Your task to perform on an android device: open app "TextNow: Call + Text Unlimited" (install if not already installed) and enter user name: "stoke@yahoo.com" and password: "prompted" Image 0: 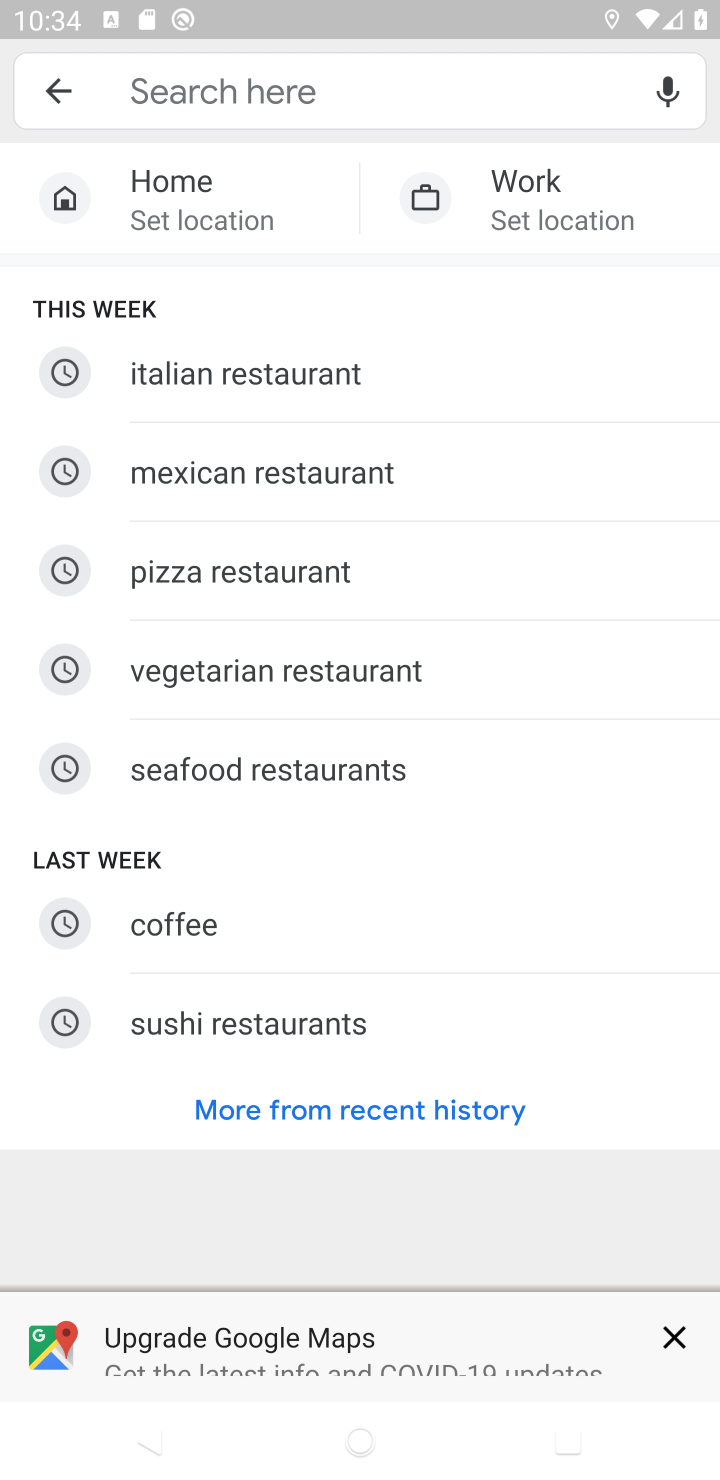
Step 0: press home button
Your task to perform on an android device: open app "TextNow: Call + Text Unlimited" (install if not already installed) and enter user name: "stoke@yahoo.com" and password: "prompted" Image 1: 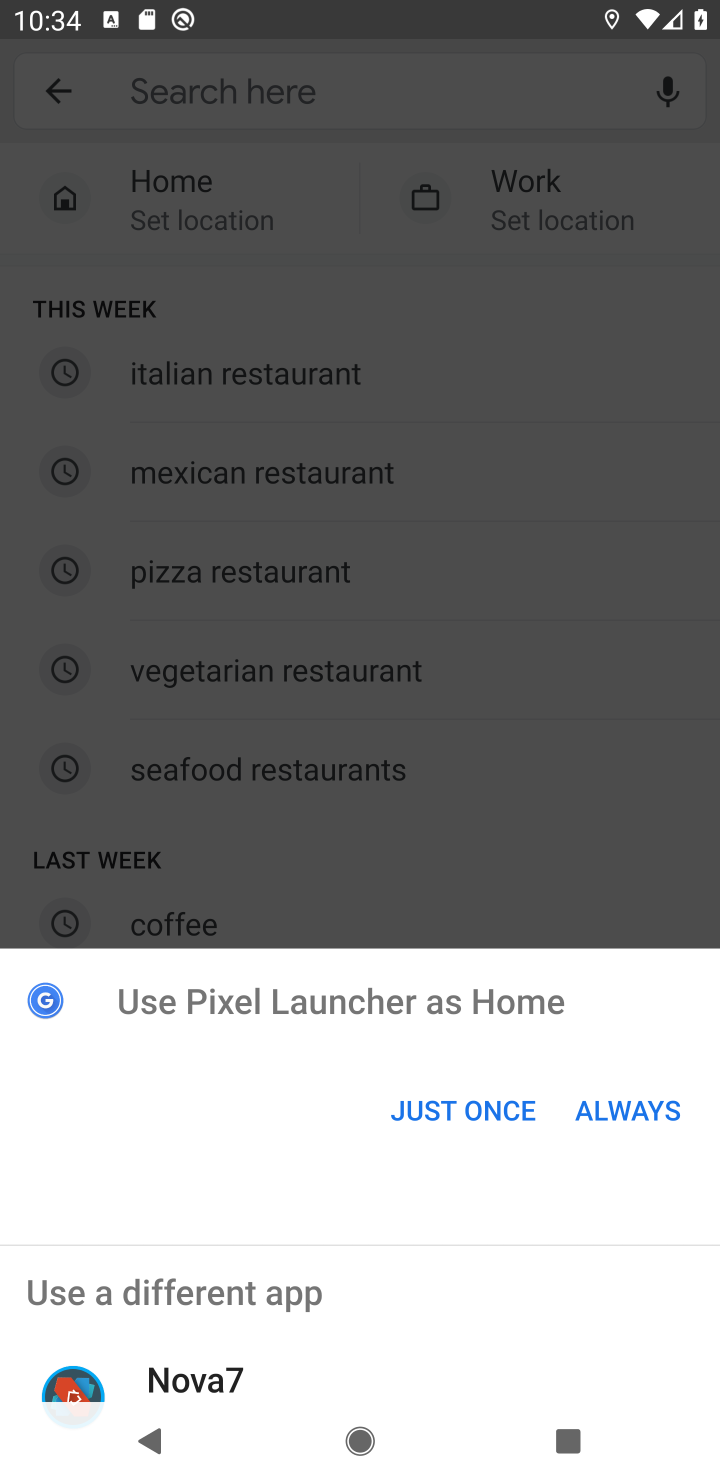
Step 1: press home button
Your task to perform on an android device: open app "TextNow: Call + Text Unlimited" (install if not already installed) and enter user name: "stoke@yahoo.com" and password: "prompted" Image 2: 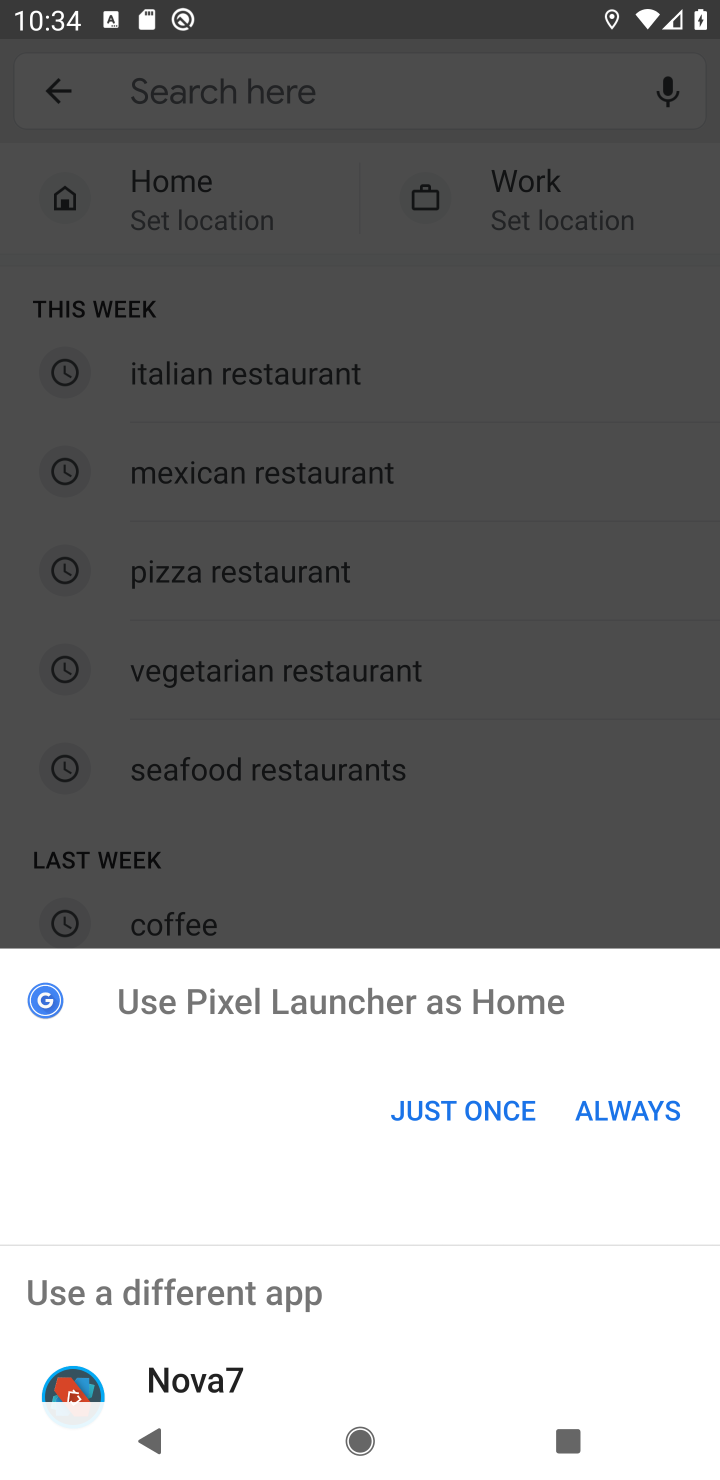
Step 2: press home button
Your task to perform on an android device: open app "TextNow: Call + Text Unlimited" (install if not already installed) and enter user name: "stoke@yahoo.com" and password: "prompted" Image 3: 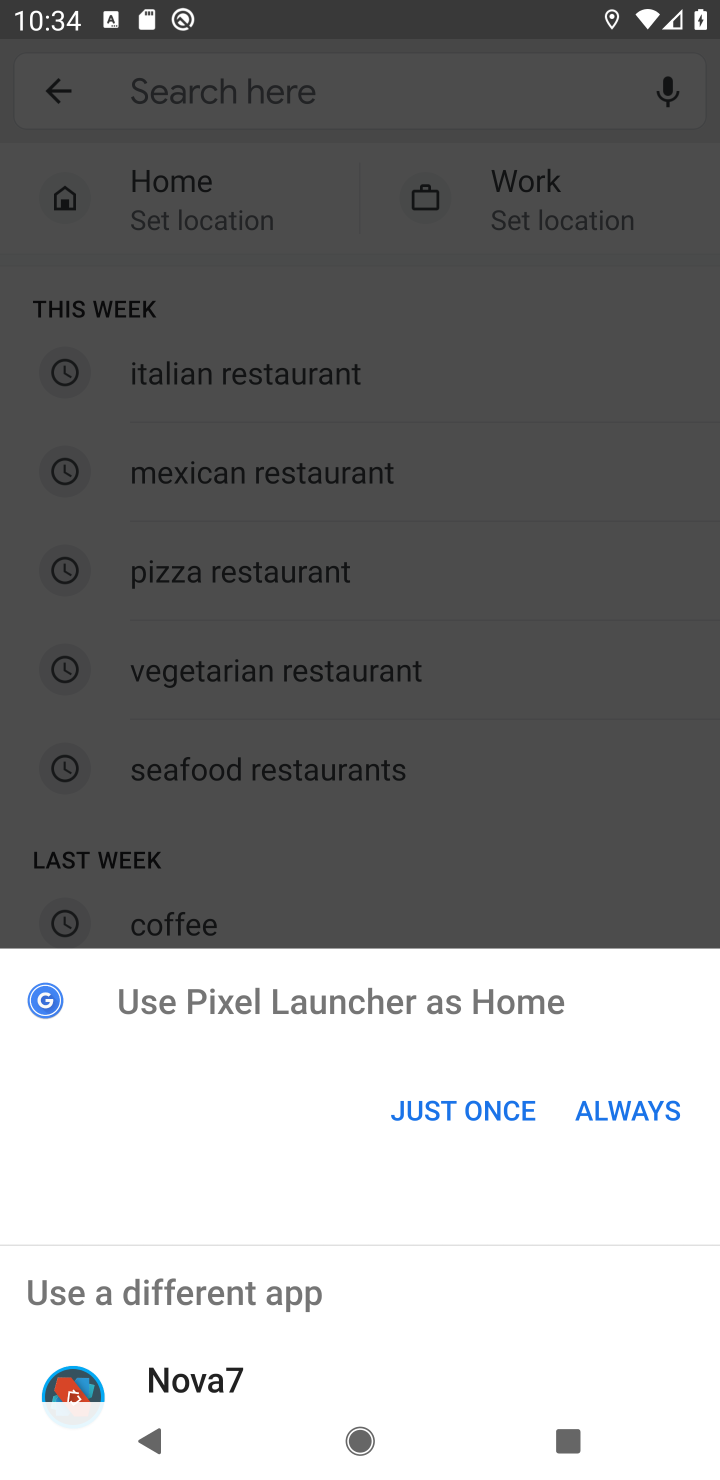
Step 3: click (439, 1094)
Your task to perform on an android device: open app "TextNow: Call + Text Unlimited" (install if not already installed) and enter user name: "stoke@yahoo.com" and password: "prompted" Image 4: 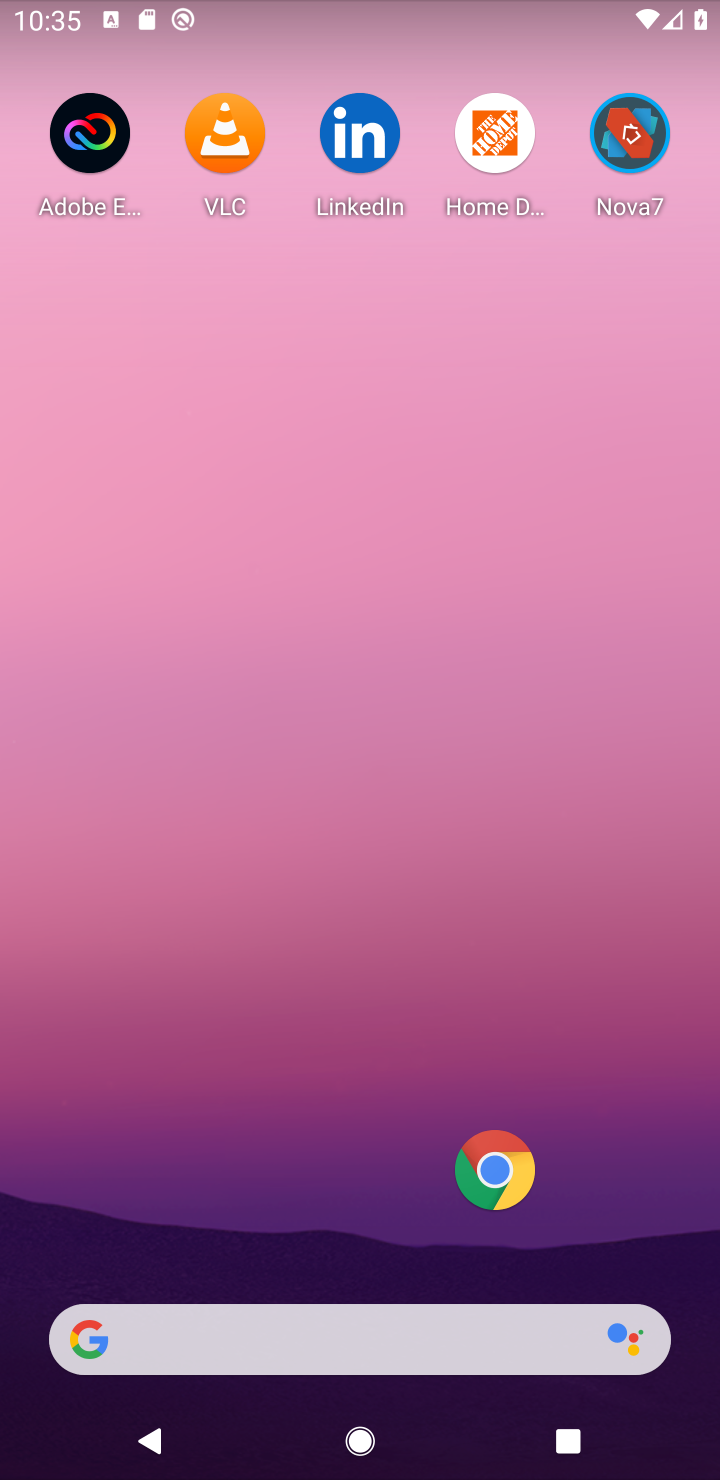
Step 4: drag from (261, 1044) to (394, 102)
Your task to perform on an android device: open app "TextNow: Call + Text Unlimited" (install if not already installed) and enter user name: "stoke@yahoo.com" and password: "prompted" Image 5: 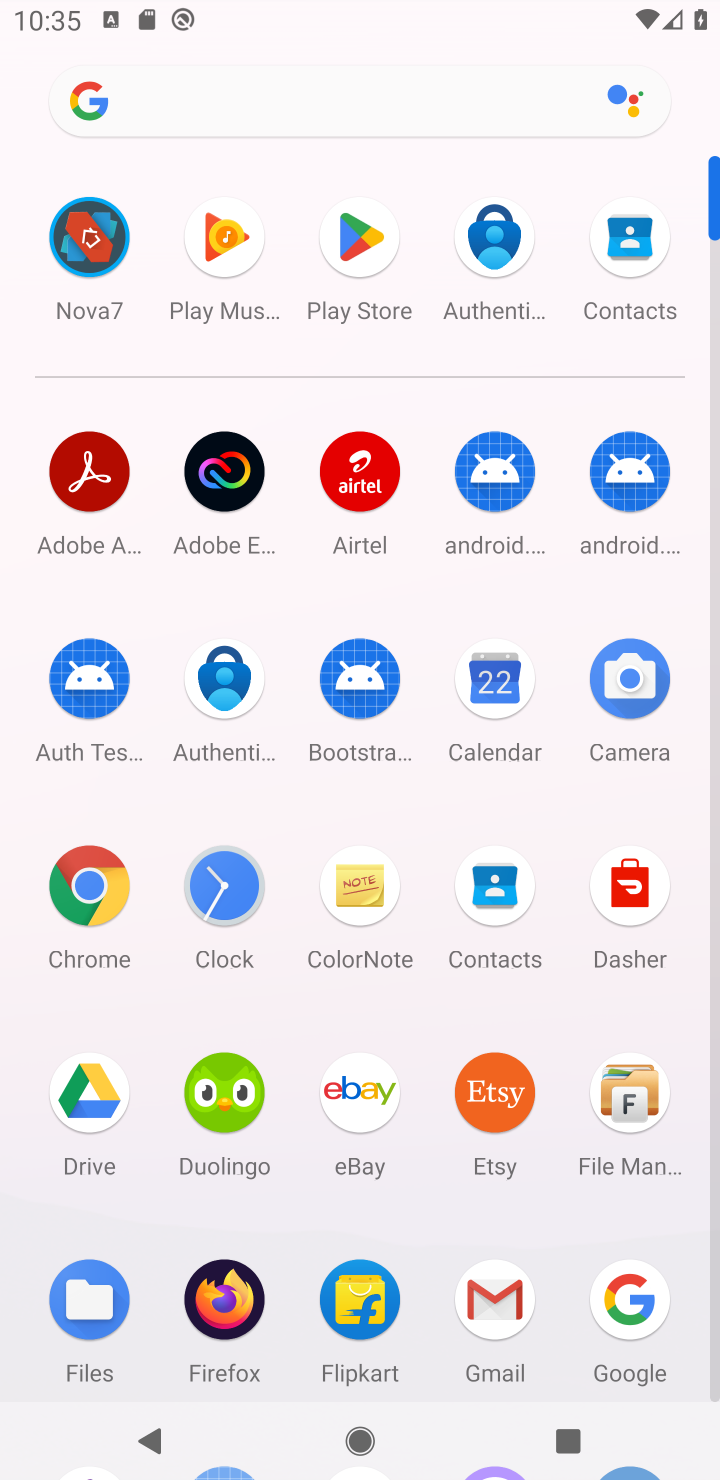
Step 5: click (377, 245)
Your task to perform on an android device: open app "TextNow: Call + Text Unlimited" (install if not already installed) and enter user name: "stoke@yahoo.com" and password: "prompted" Image 6: 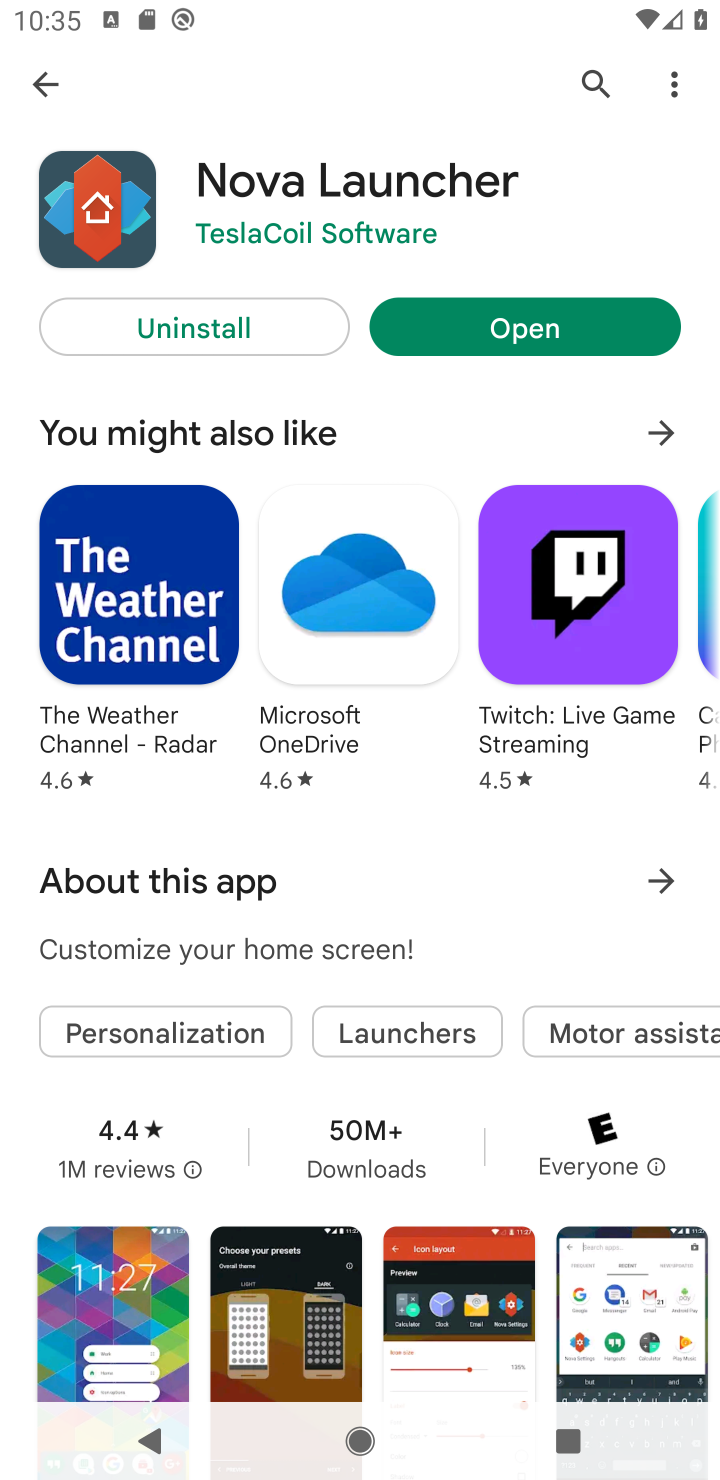
Step 6: click (588, 71)
Your task to perform on an android device: open app "TextNow: Call + Text Unlimited" (install if not already installed) and enter user name: "stoke@yahoo.com" and password: "prompted" Image 7: 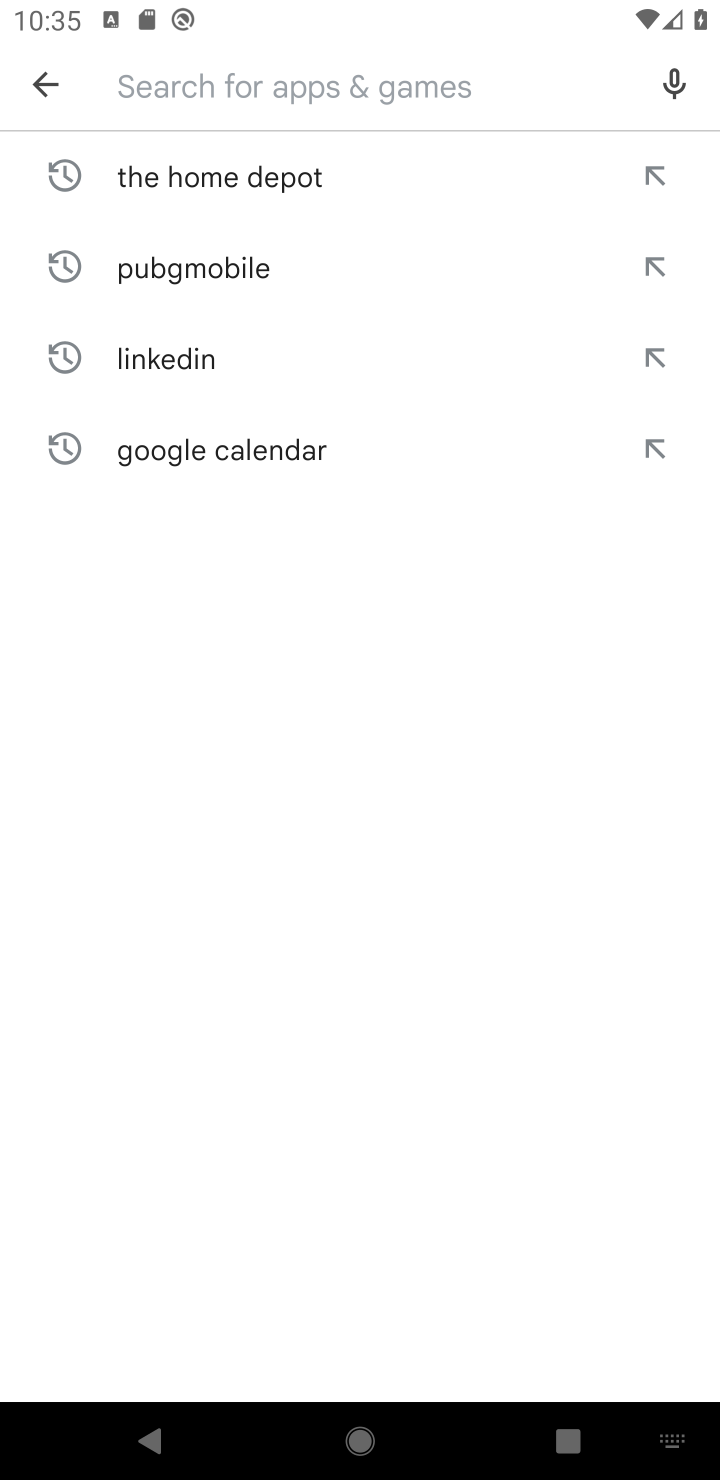
Step 7: click (198, 78)
Your task to perform on an android device: open app "TextNow: Call + Text Unlimited" (install if not already installed) and enter user name: "stoke@yahoo.com" and password: "prompted" Image 8: 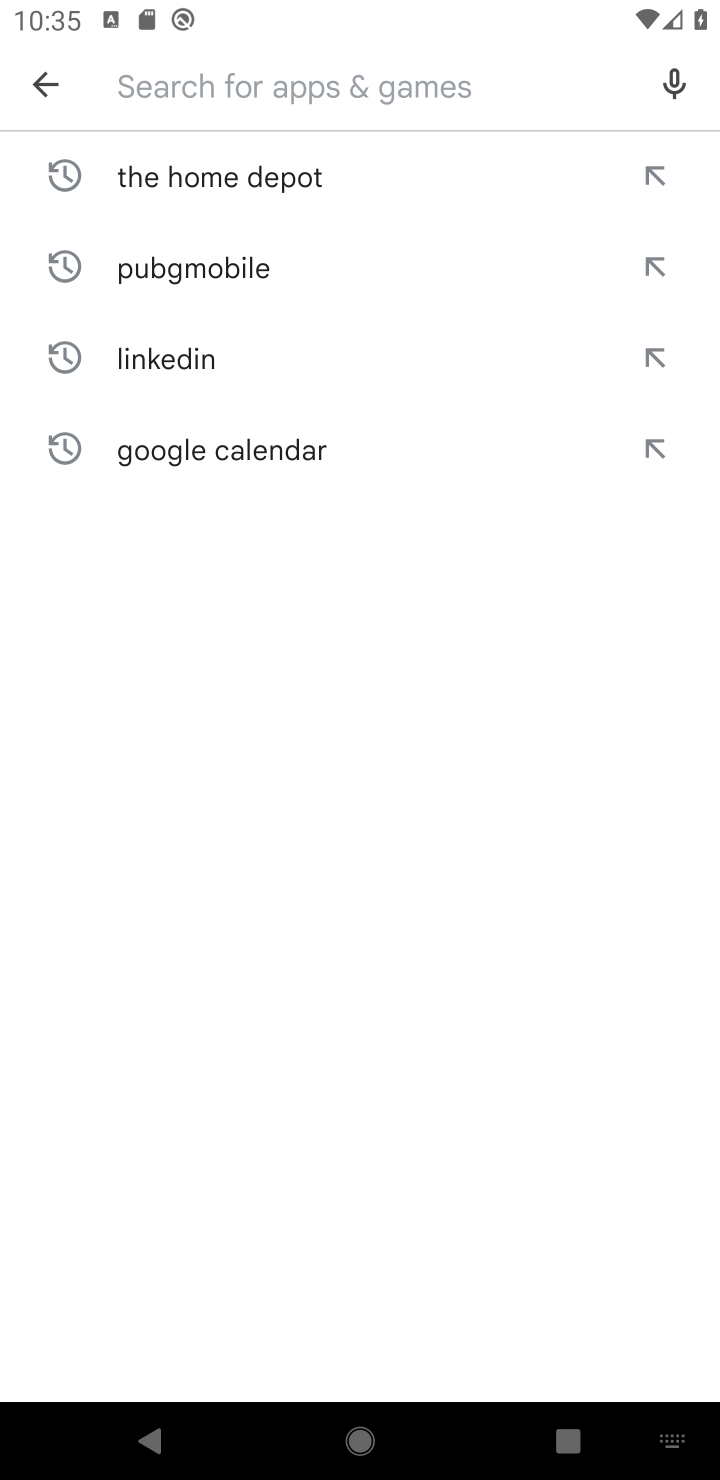
Step 8: type "TextNow: Call"
Your task to perform on an android device: open app "TextNow: Call + Text Unlimited" (install if not already installed) and enter user name: "stoke@yahoo.com" and password: "prompted" Image 9: 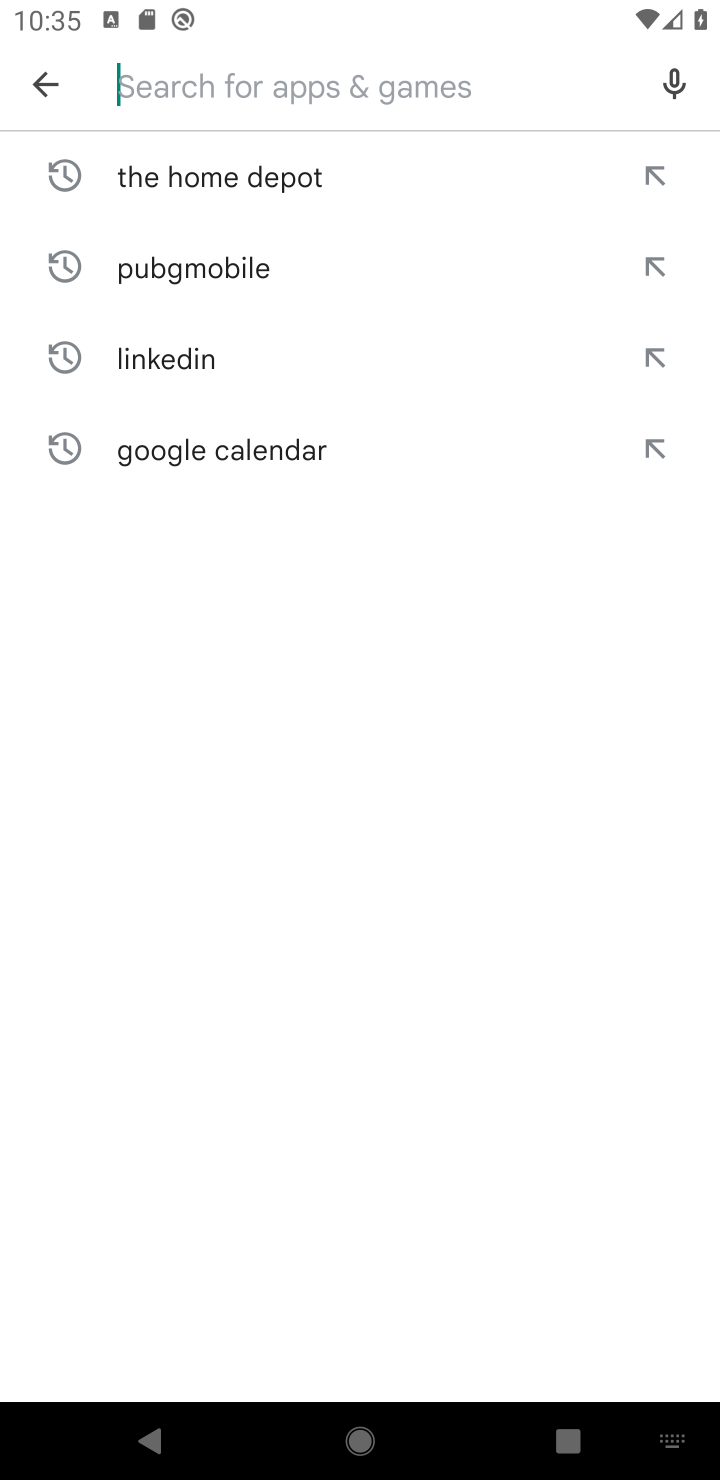
Step 9: click (409, 904)
Your task to perform on an android device: open app "TextNow: Call + Text Unlimited" (install if not already installed) and enter user name: "stoke@yahoo.com" and password: "prompted" Image 10: 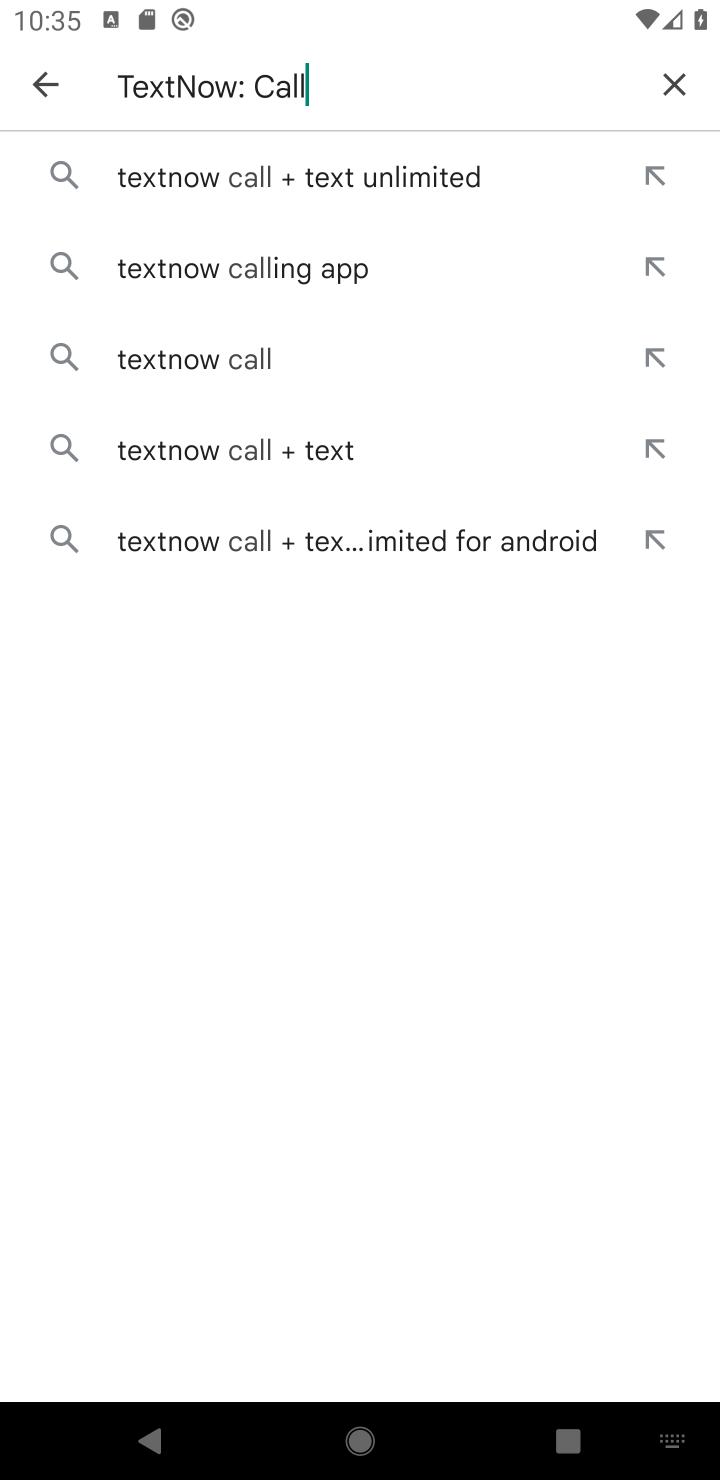
Step 10: click (332, 166)
Your task to perform on an android device: open app "TextNow: Call + Text Unlimited" (install if not already installed) and enter user name: "stoke@yahoo.com" and password: "prompted" Image 11: 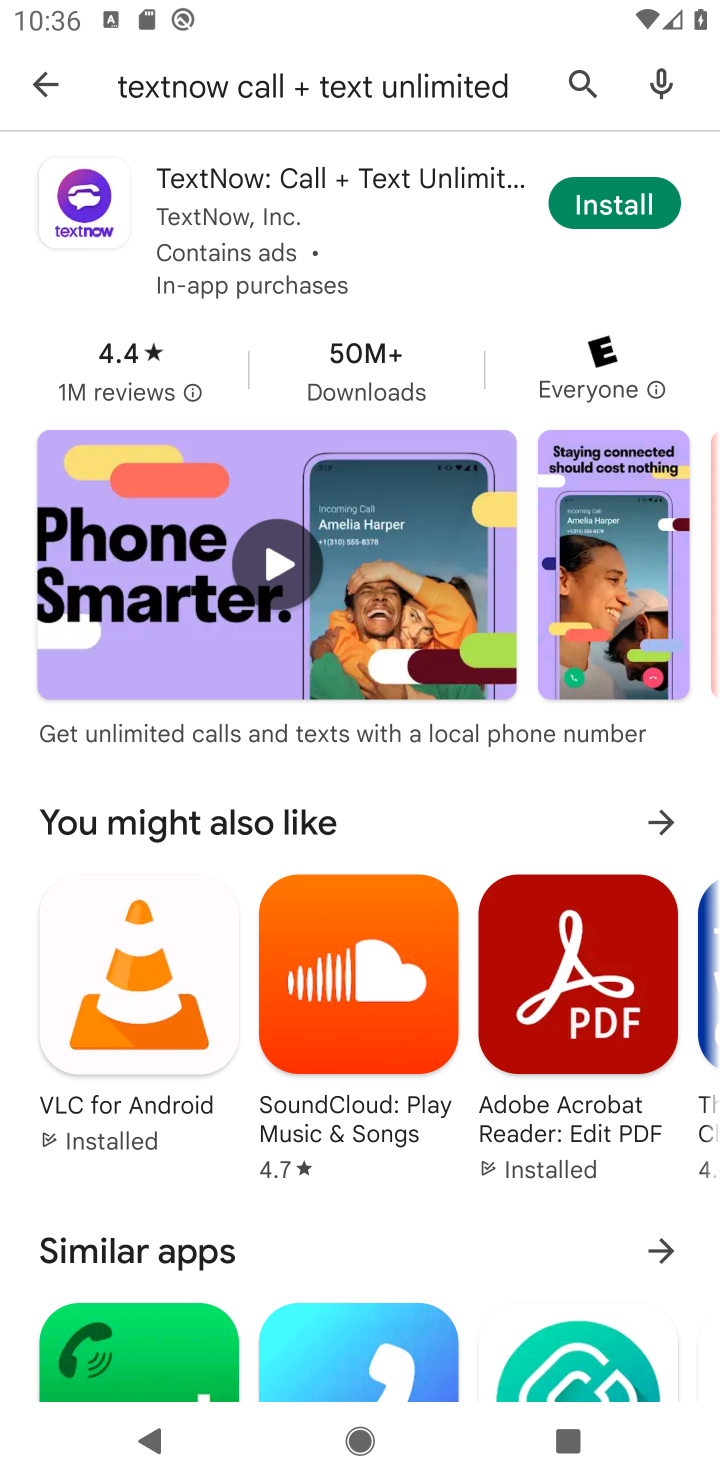
Step 11: click (617, 197)
Your task to perform on an android device: open app "TextNow: Call + Text Unlimited" (install if not already installed) and enter user name: "stoke@yahoo.com" and password: "prompted" Image 12: 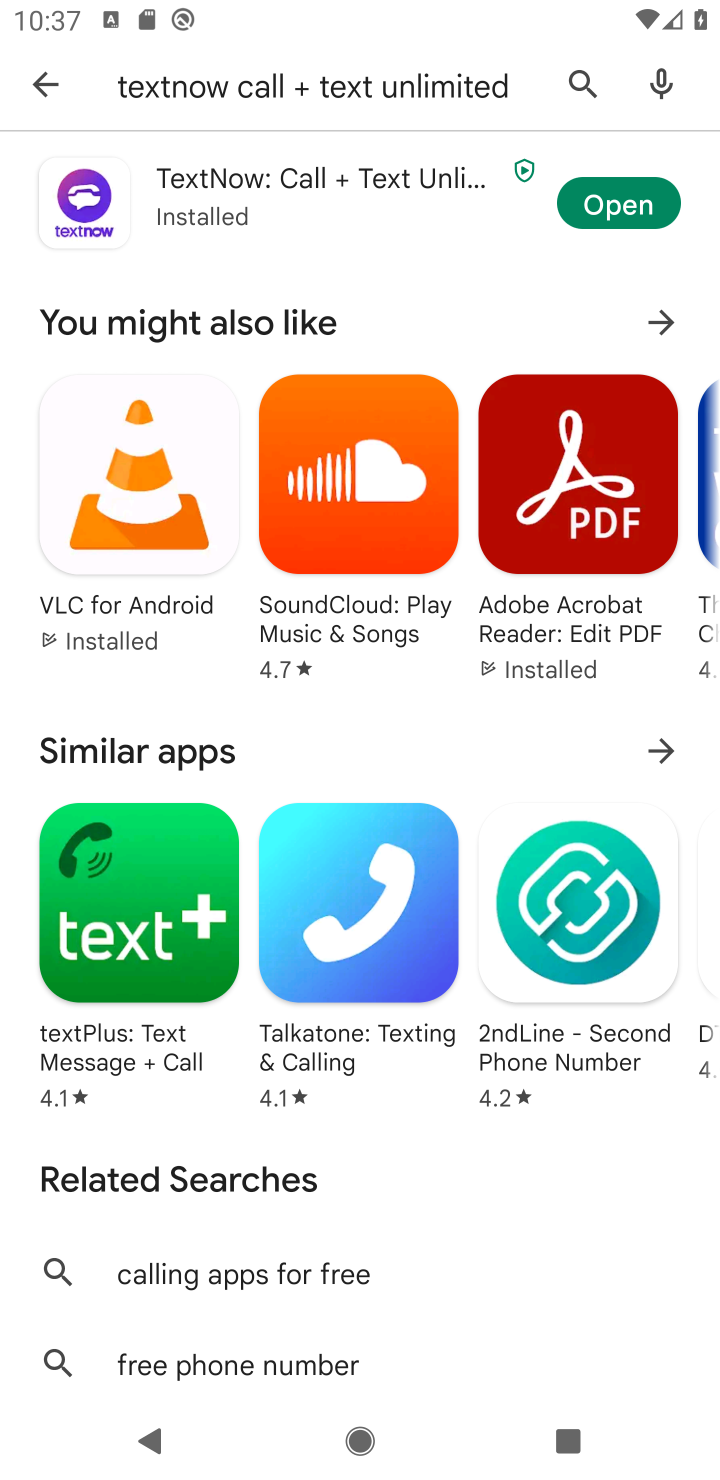
Step 12: click (604, 209)
Your task to perform on an android device: open app "TextNow: Call + Text Unlimited" (install if not already installed) and enter user name: "stoke@yahoo.com" and password: "prompted" Image 13: 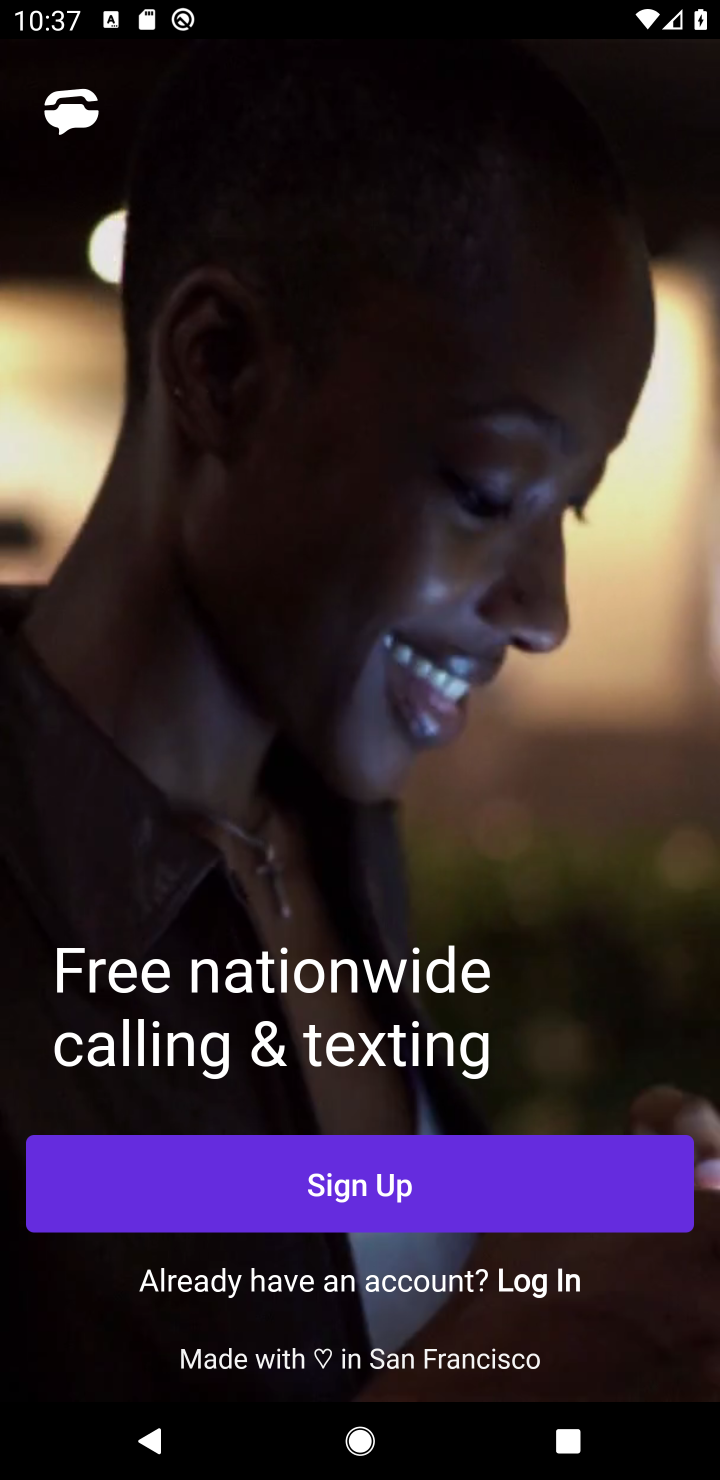
Step 13: click (526, 1286)
Your task to perform on an android device: open app "TextNow: Call + Text Unlimited" (install if not already installed) and enter user name: "stoke@yahoo.com" and password: "prompted" Image 14: 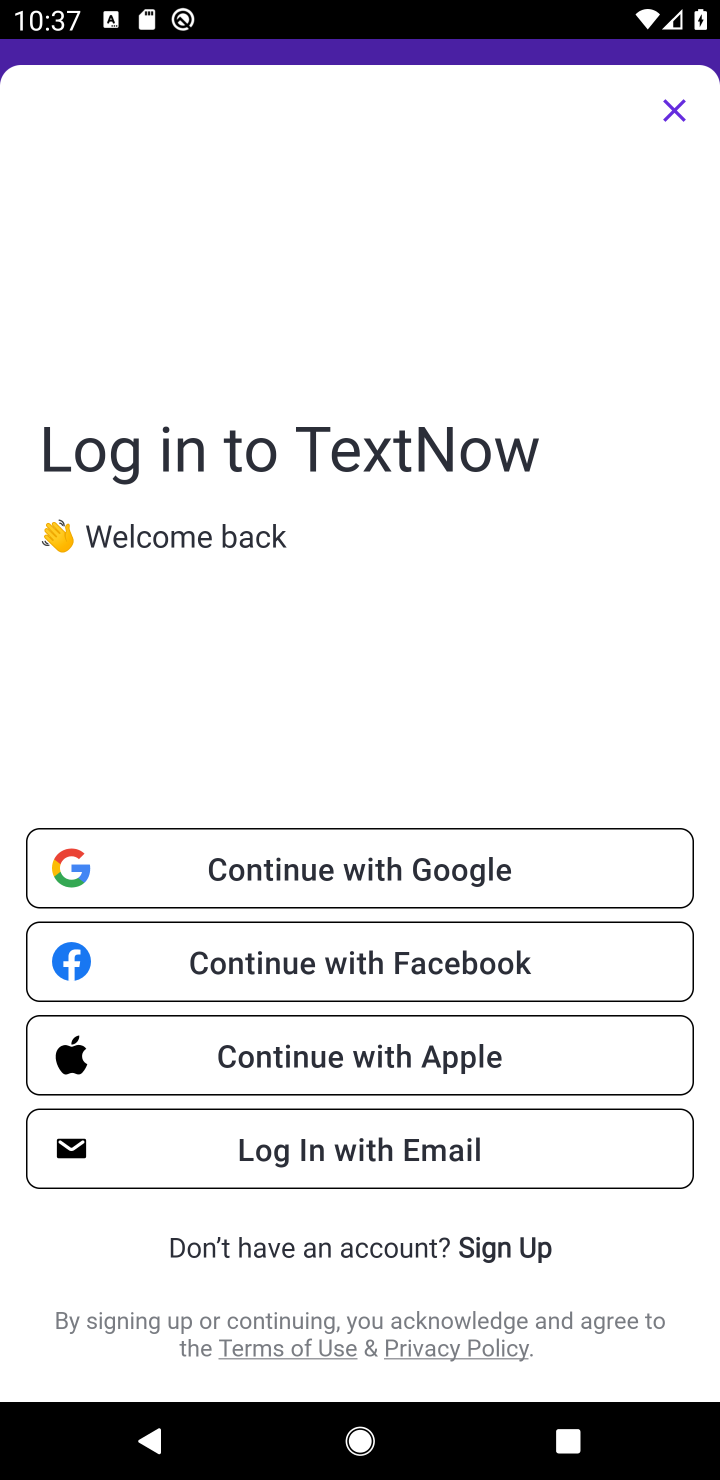
Step 14: click (472, 1244)
Your task to perform on an android device: open app "TextNow: Call + Text Unlimited" (install if not already installed) and enter user name: "stoke@yahoo.com" and password: "prompted" Image 15: 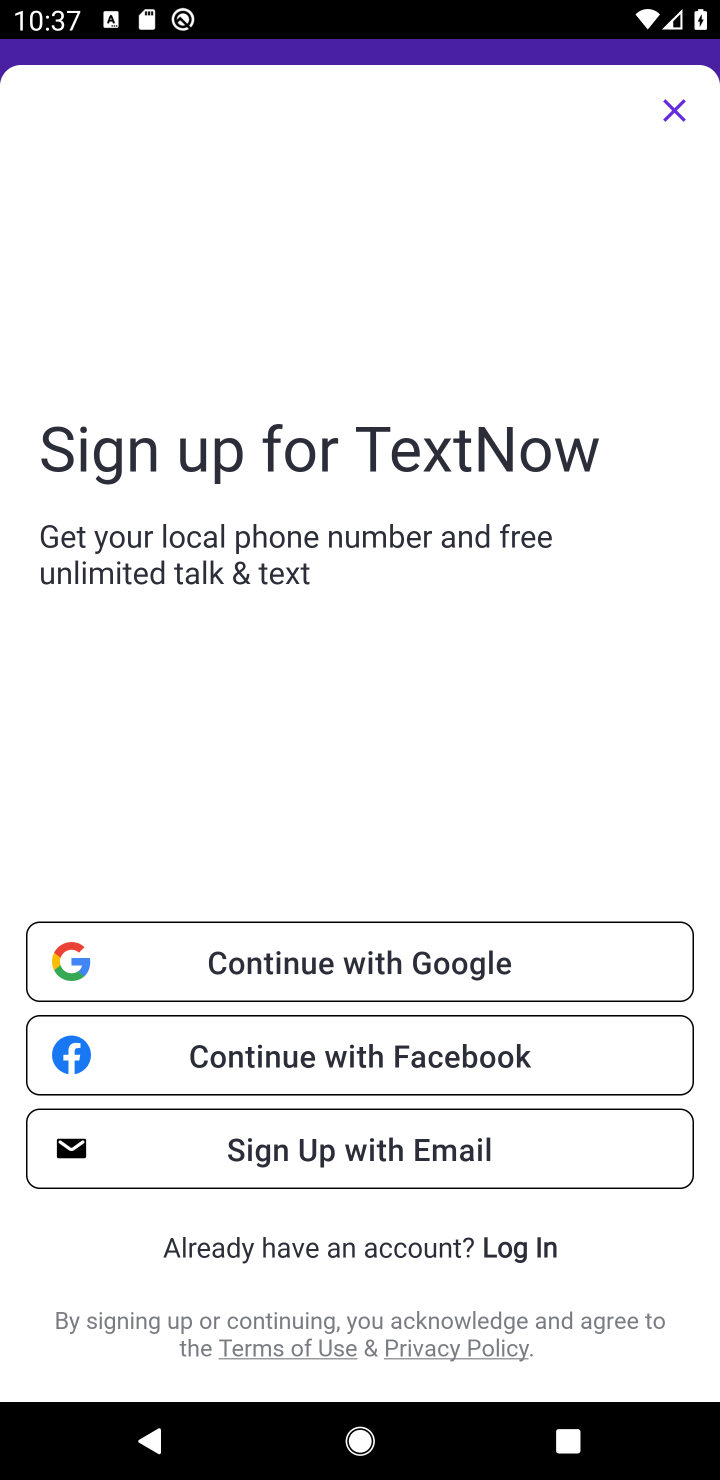
Step 15: click (504, 1242)
Your task to perform on an android device: open app "TextNow: Call + Text Unlimited" (install if not already installed) and enter user name: "stoke@yahoo.com" and password: "prompted" Image 16: 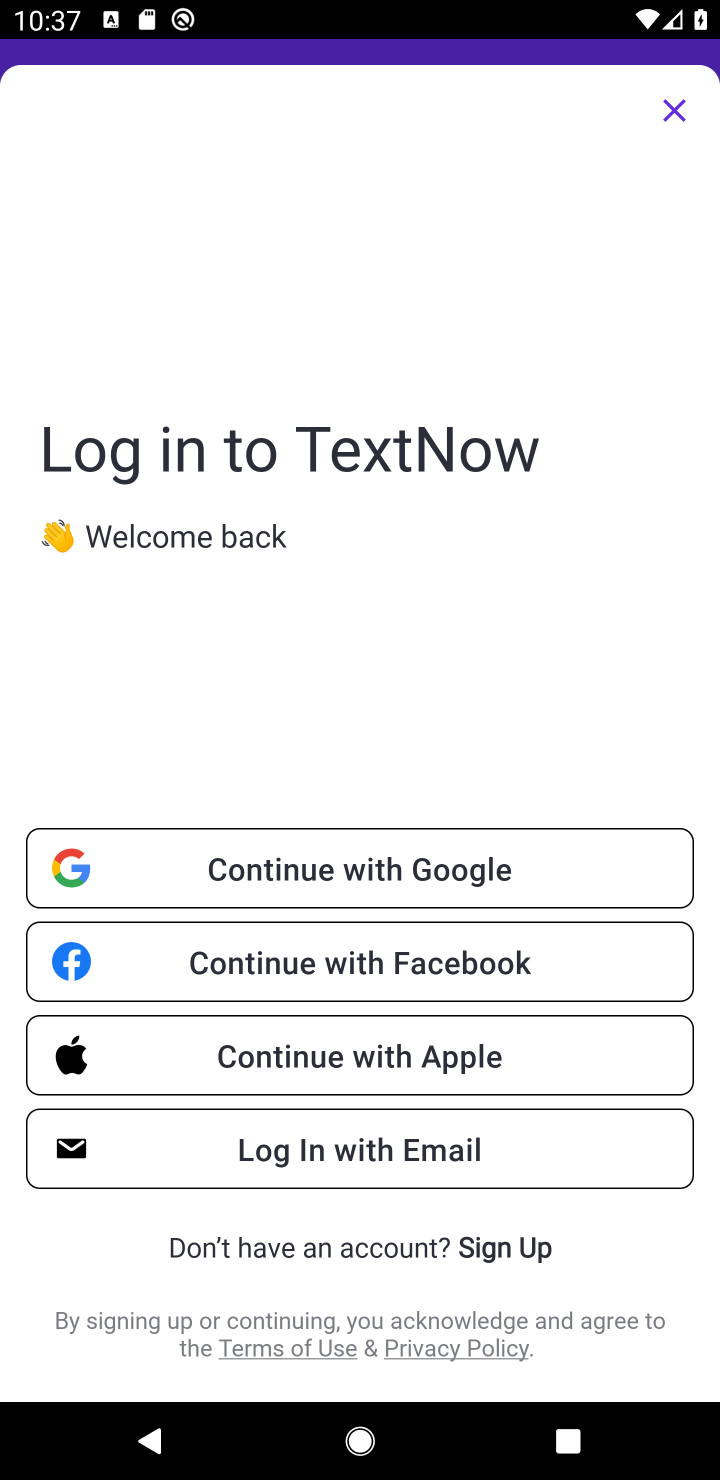
Step 16: click (353, 1139)
Your task to perform on an android device: open app "TextNow: Call + Text Unlimited" (install if not already installed) and enter user name: "stoke@yahoo.com" and password: "prompted" Image 17: 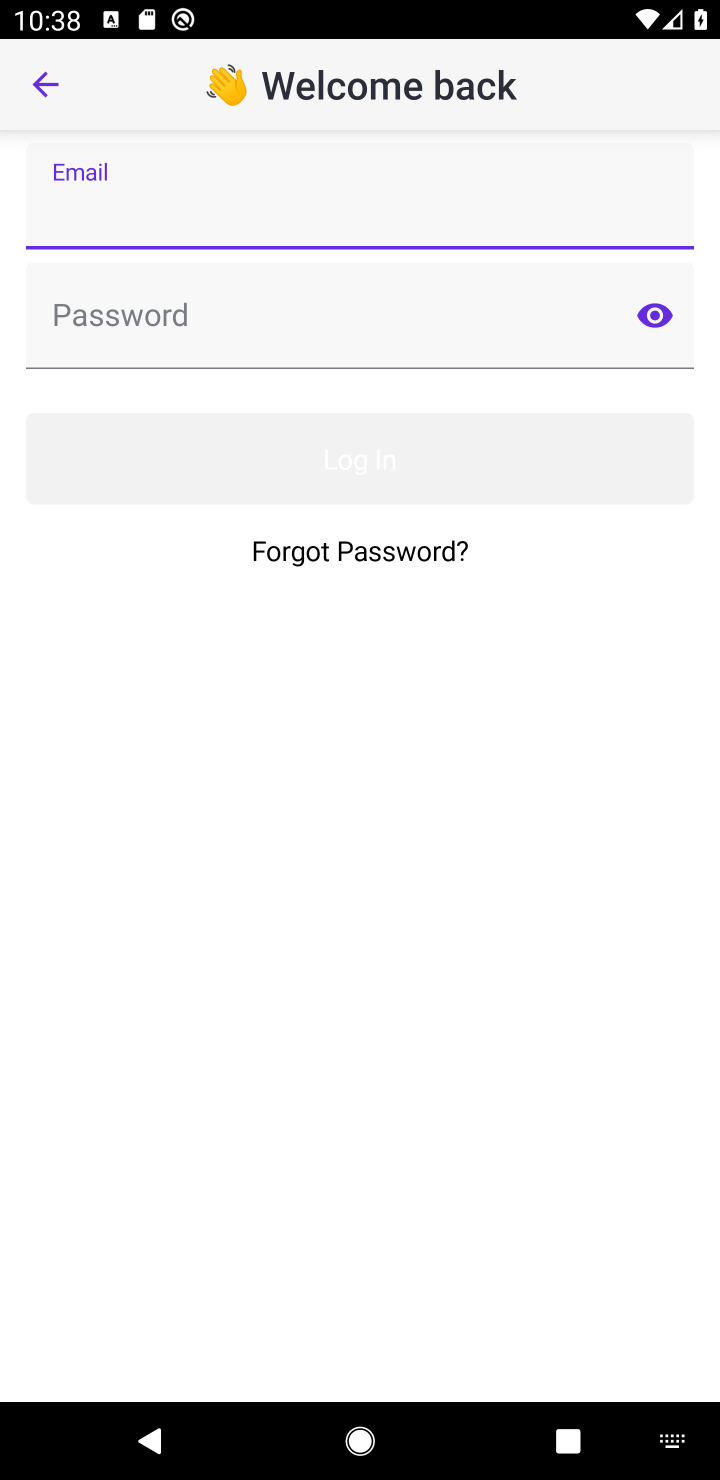
Step 17: click (112, 208)
Your task to perform on an android device: open app "TextNow: Call + Text Unlimited" (install if not already installed) and enter user name: "stoke@yahoo.com" and password: "prompted" Image 18: 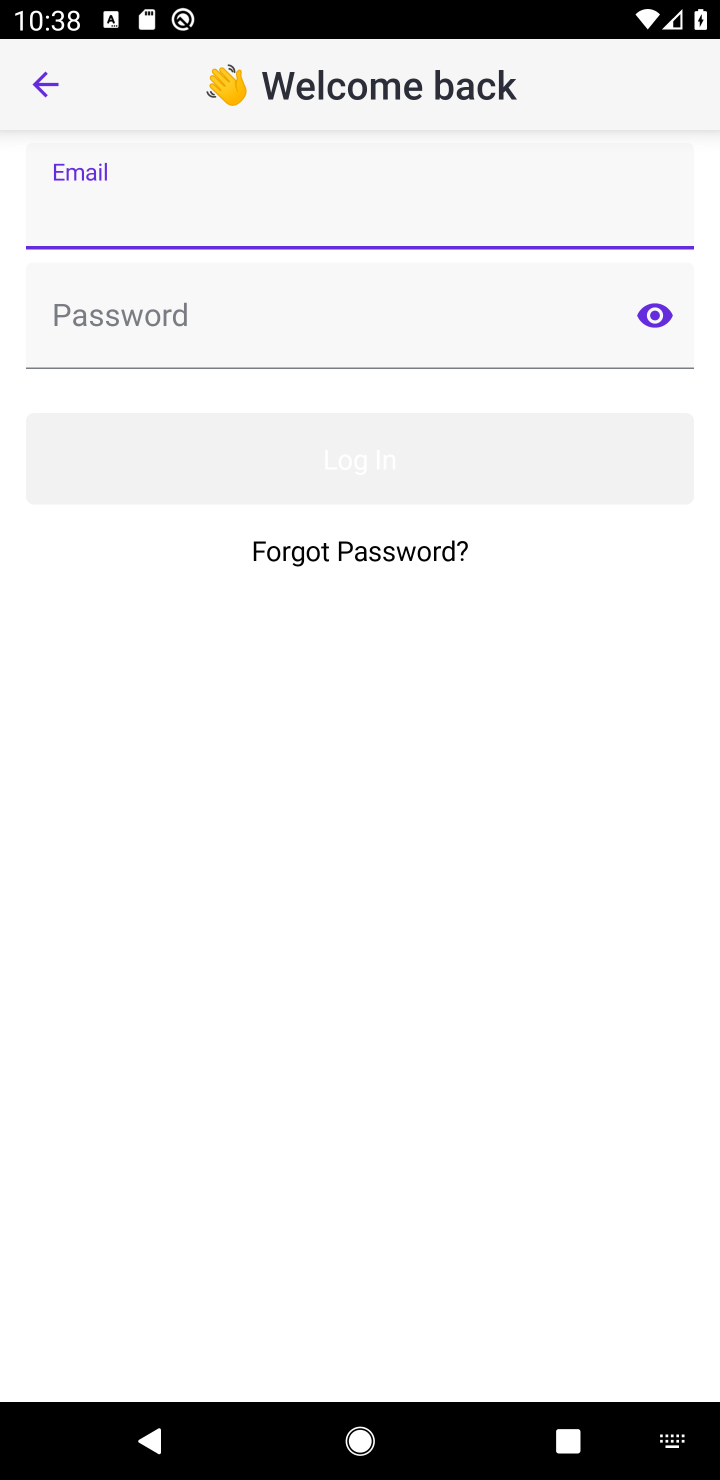
Step 18: type "stoke@yahoo.com"
Your task to perform on an android device: open app "TextNow: Call + Text Unlimited" (install if not already installed) and enter user name: "stoke@yahoo.com" and password: "prompted" Image 19: 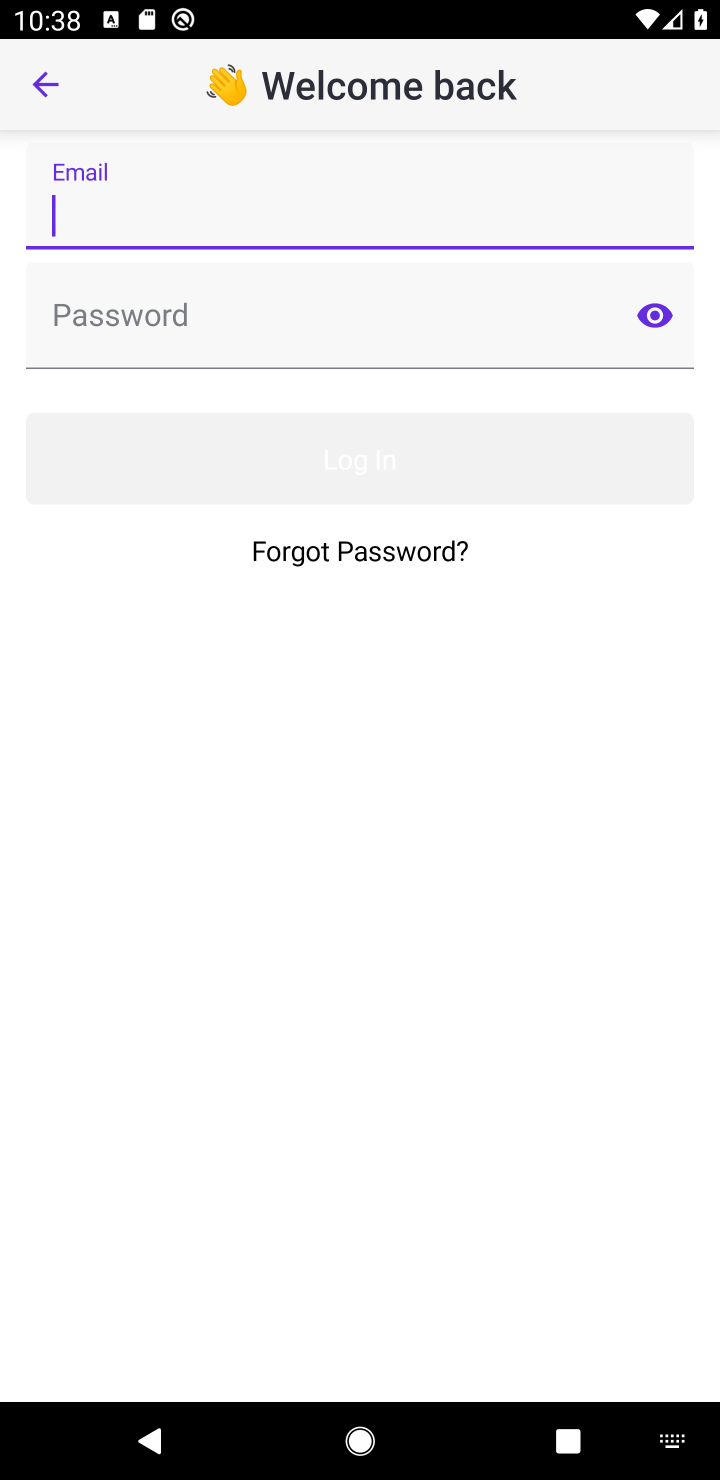
Step 19: click (266, 320)
Your task to perform on an android device: open app "TextNow: Call + Text Unlimited" (install if not already installed) and enter user name: "stoke@yahoo.com" and password: "prompted" Image 20: 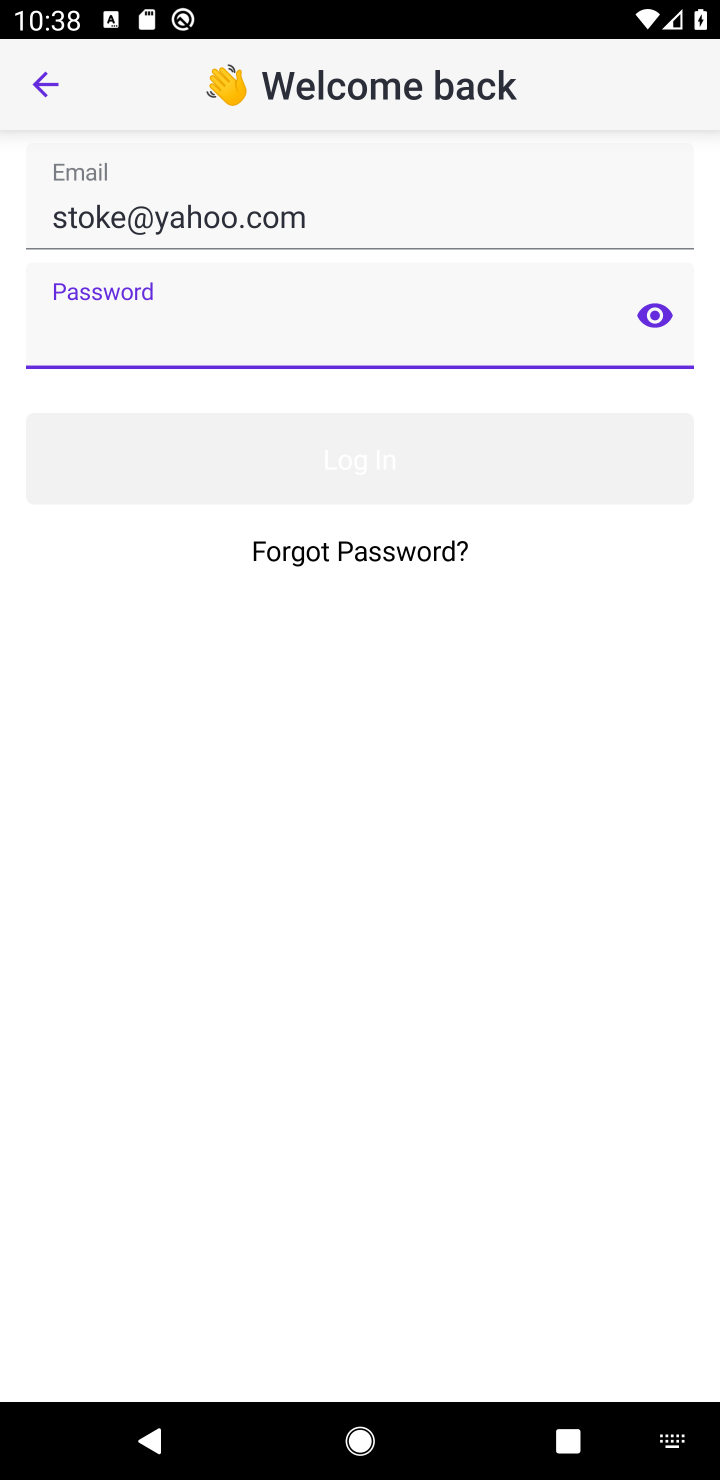
Step 20: click (126, 328)
Your task to perform on an android device: open app "TextNow: Call + Text Unlimited" (install if not already installed) and enter user name: "stoke@yahoo.com" and password: "prompted" Image 21: 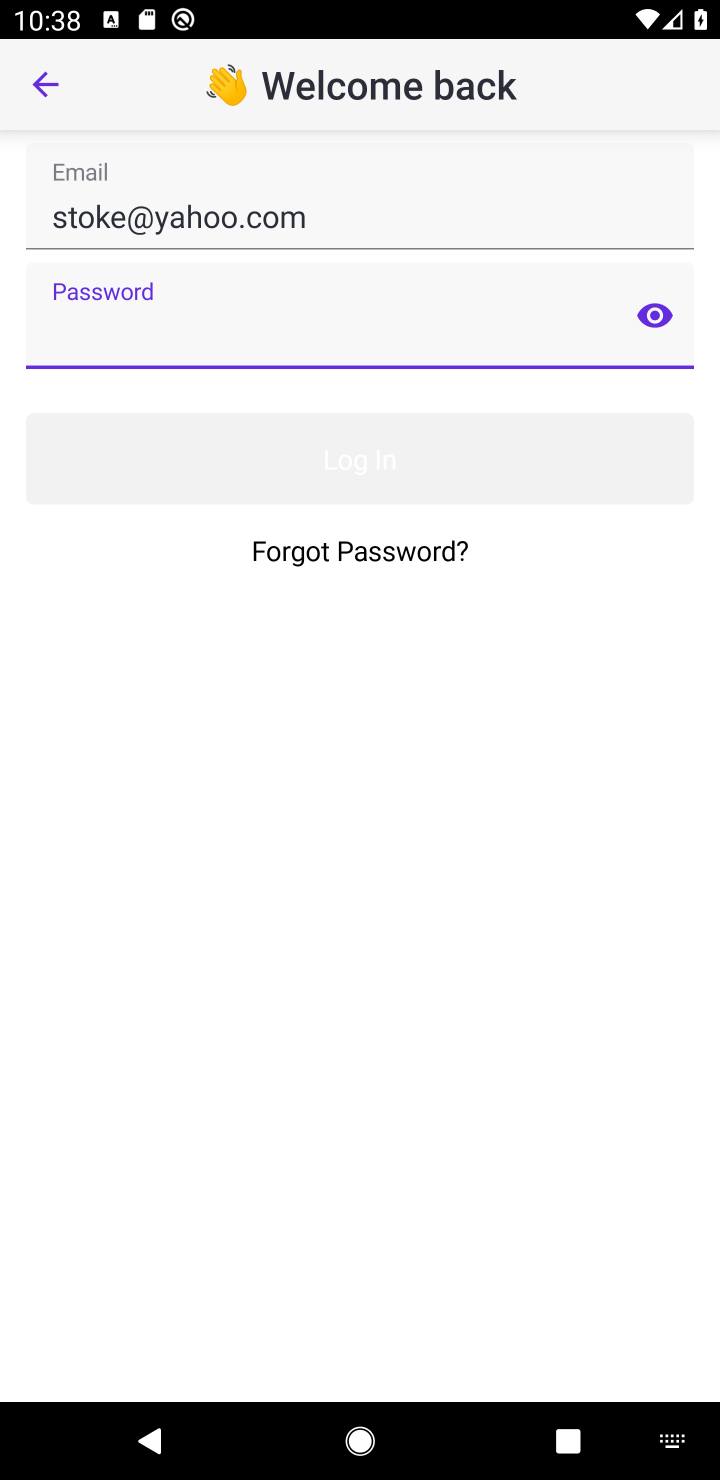
Step 21: type "prompted"
Your task to perform on an android device: open app "TextNow: Call + Text Unlimited" (install if not already installed) and enter user name: "stoke@yahoo.com" and password: "prompted" Image 22: 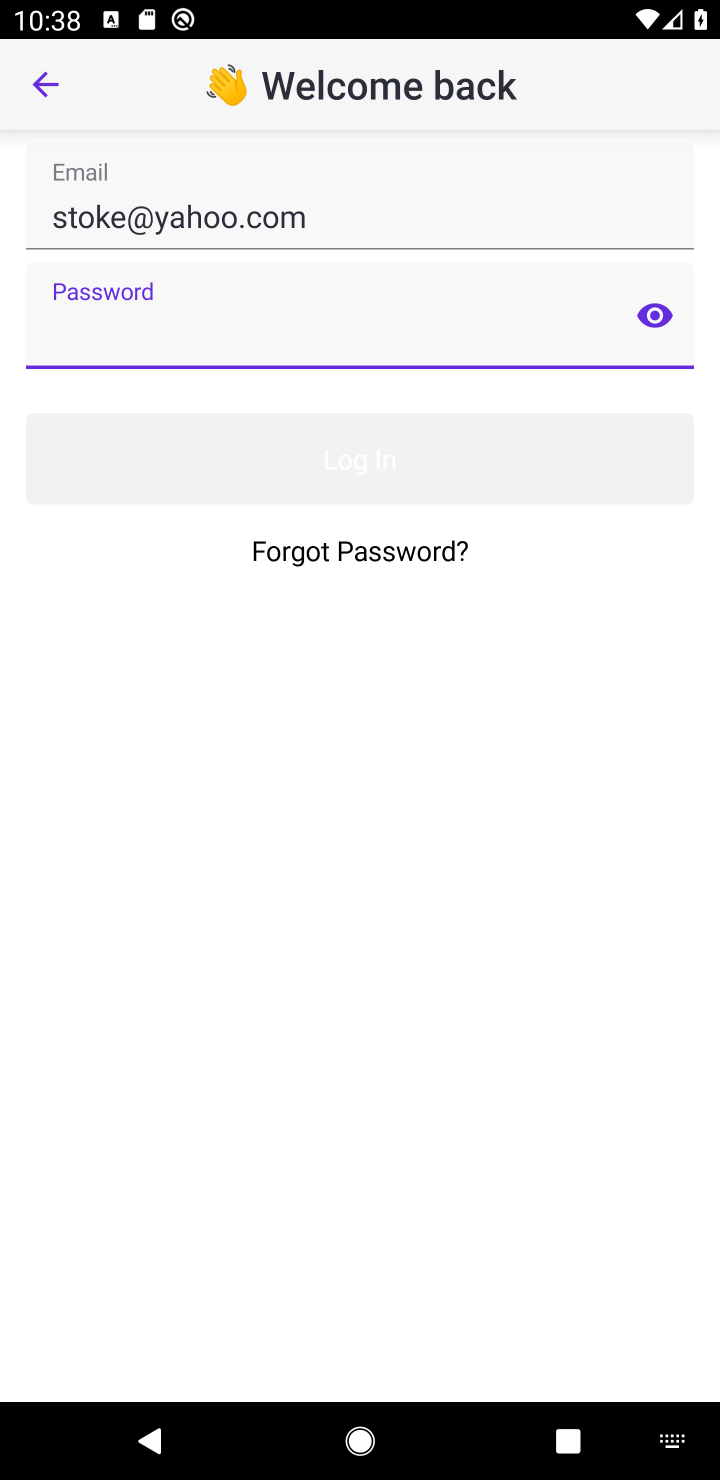
Step 22: click (428, 945)
Your task to perform on an android device: open app "TextNow: Call + Text Unlimited" (install if not already installed) and enter user name: "stoke@yahoo.com" and password: "prompted" Image 23: 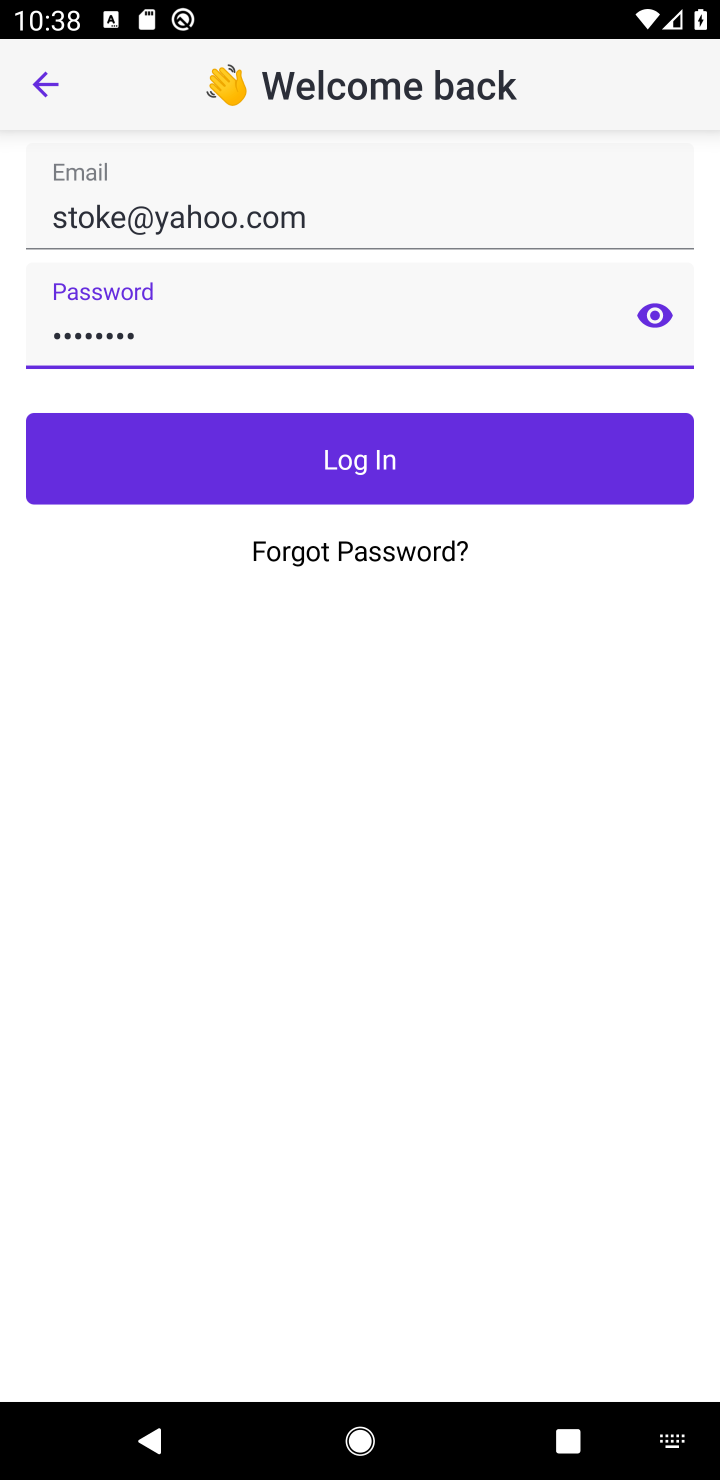
Step 23: task complete